Your task to perform on an android device: open wifi settings Image 0: 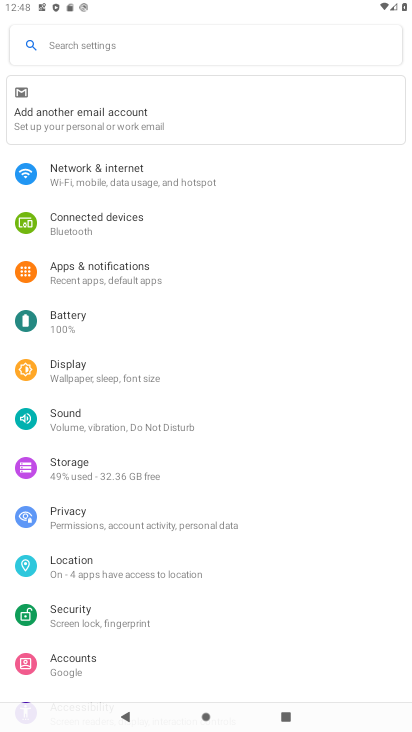
Step 0: click (78, 176)
Your task to perform on an android device: open wifi settings Image 1: 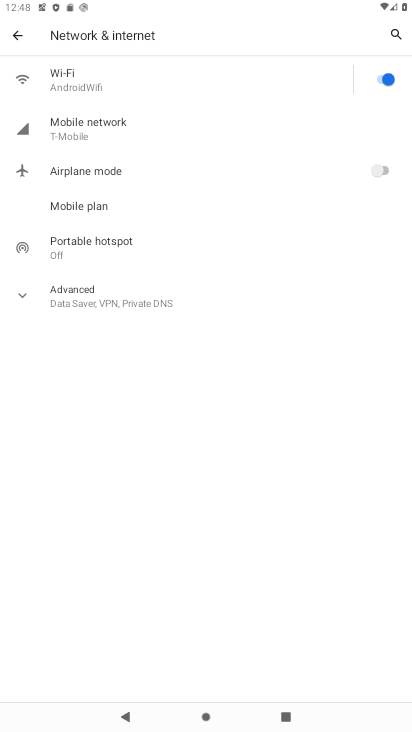
Step 1: click (121, 90)
Your task to perform on an android device: open wifi settings Image 2: 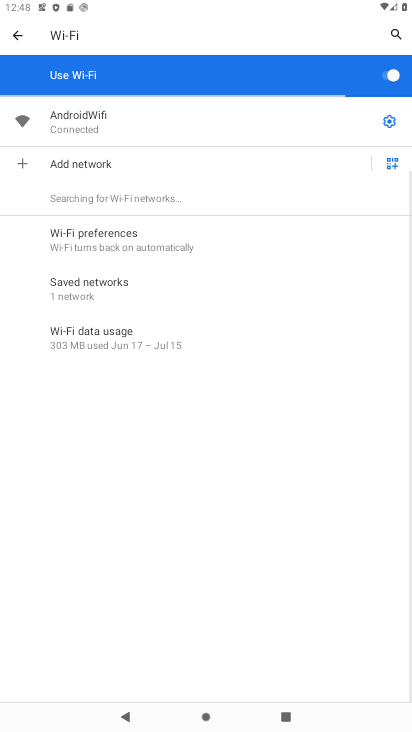
Step 2: click (388, 127)
Your task to perform on an android device: open wifi settings Image 3: 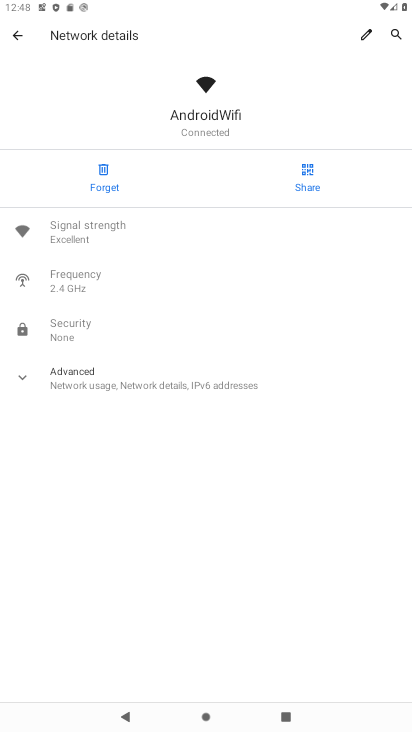
Step 3: task complete